Your task to perform on an android device: turn off wifi Image 0: 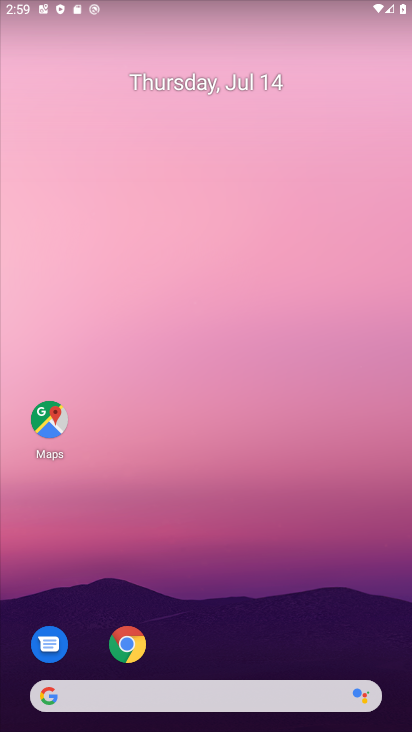
Step 0: drag from (210, 692) to (192, 166)
Your task to perform on an android device: turn off wifi Image 1: 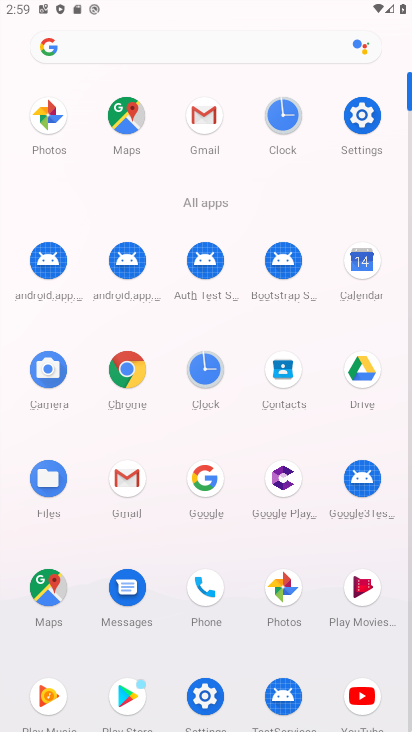
Step 1: click (206, 694)
Your task to perform on an android device: turn off wifi Image 2: 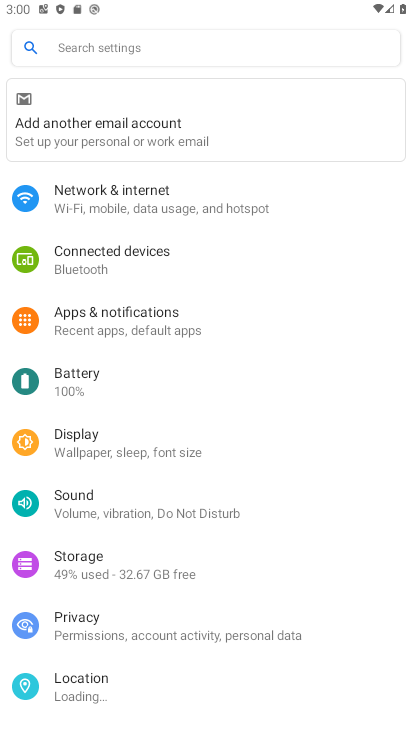
Step 2: click (122, 191)
Your task to perform on an android device: turn off wifi Image 3: 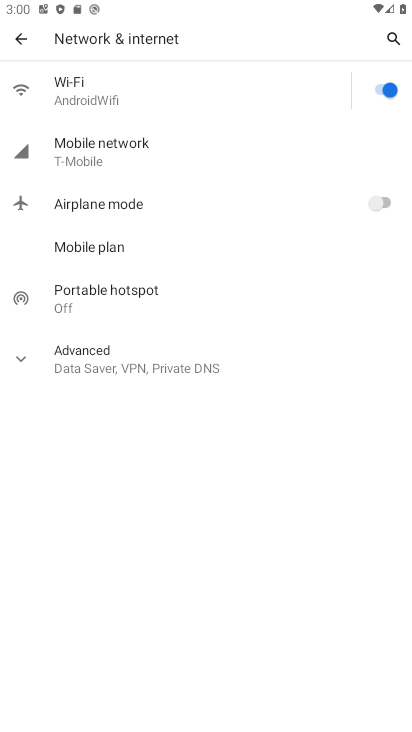
Step 3: click (379, 86)
Your task to perform on an android device: turn off wifi Image 4: 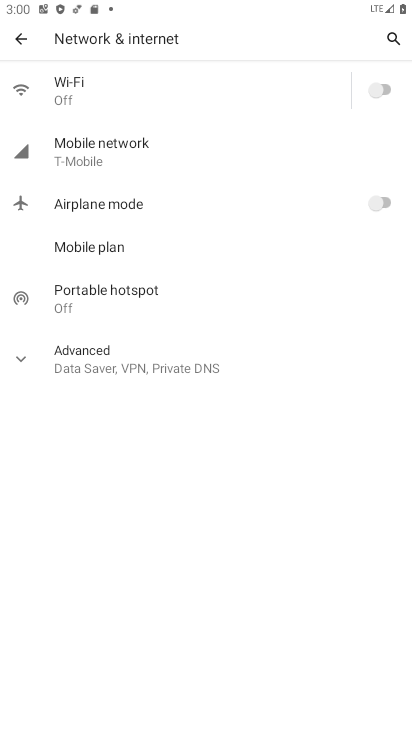
Step 4: task complete